Your task to perform on an android device: Search for Mexican restaurants on Maps Image 0: 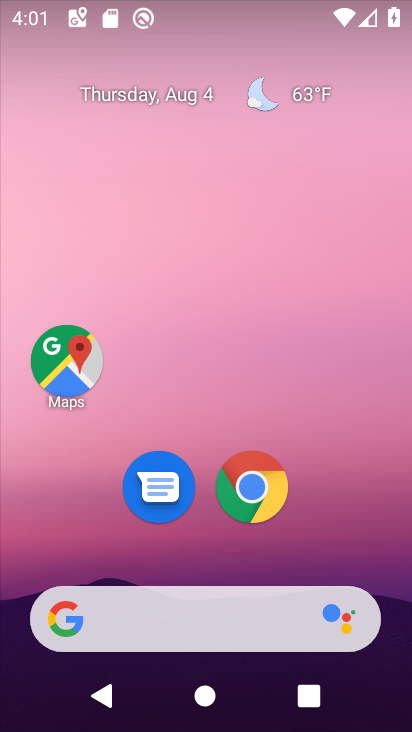
Step 0: click (68, 365)
Your task to perform on an android device: Search for Mexican restaurants on Maps Image 1: 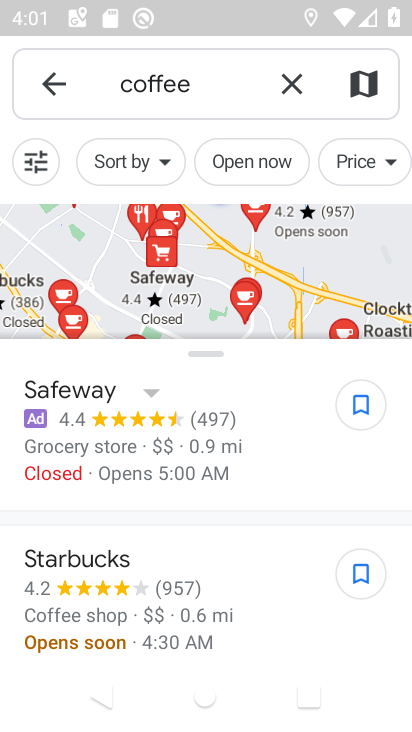
Step 1: click (276, 82)
Your task to perform on an android device: Search for Mexican restaurants on Maps Image 2: 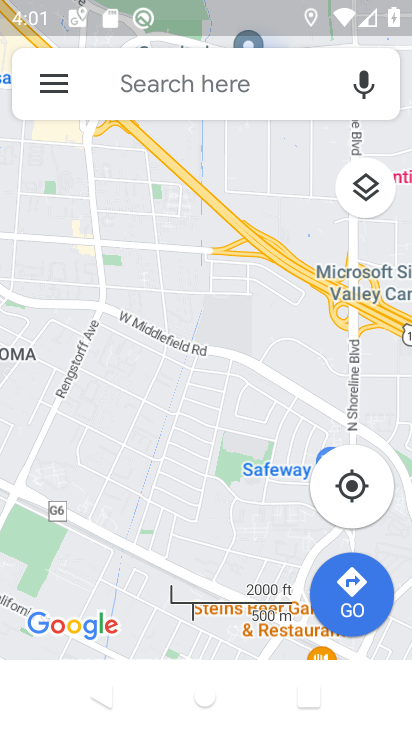
Step 2: click (190, 84)
Your task to perform on an android device: Search for Mexican restaurants on Maps Image 3: 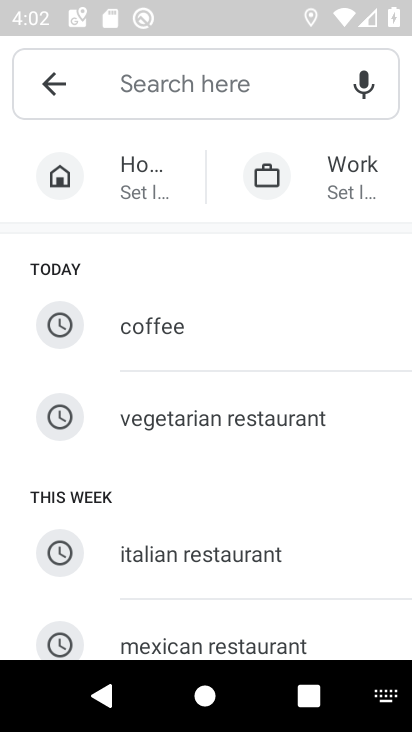
Step 3: type "mexican"
Your task to perform on an android device: Search for Mexican restaurants on Maps Image 4: 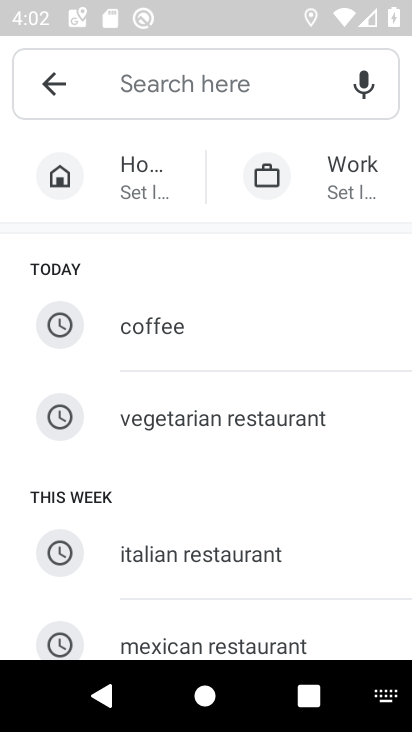
Step 4: click (231, 647)
Your task to perform on an android device: Search for Mexican restaurants on Maps Image 5: 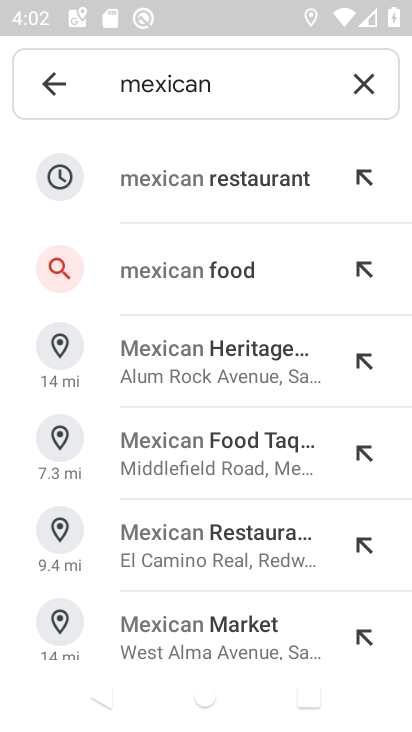
Step 5: click (175, 181)
Your task to perform on an android device: Search for Mexican restaurants on Maps Image 6: 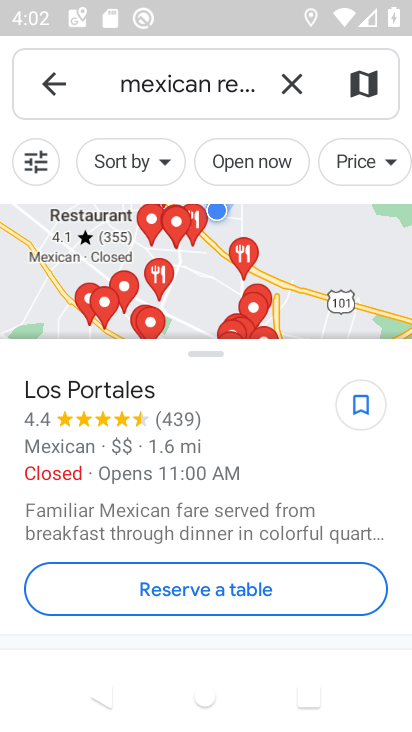
Step 6: task complete